Your task to perform on an android device: check storage Image 0: 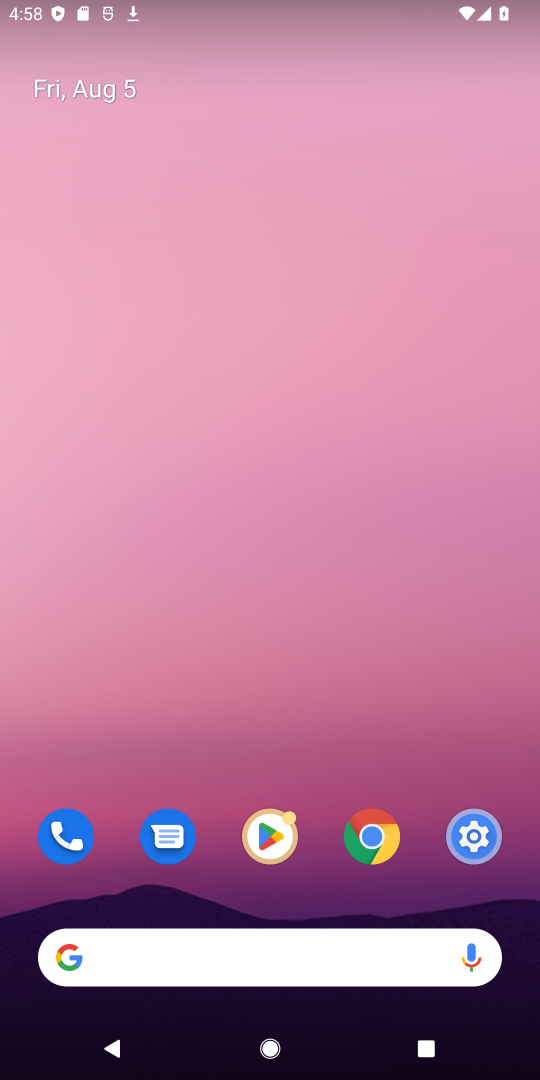
Step 0: press home button
Your task to perform on an android device: check storage Image 1: 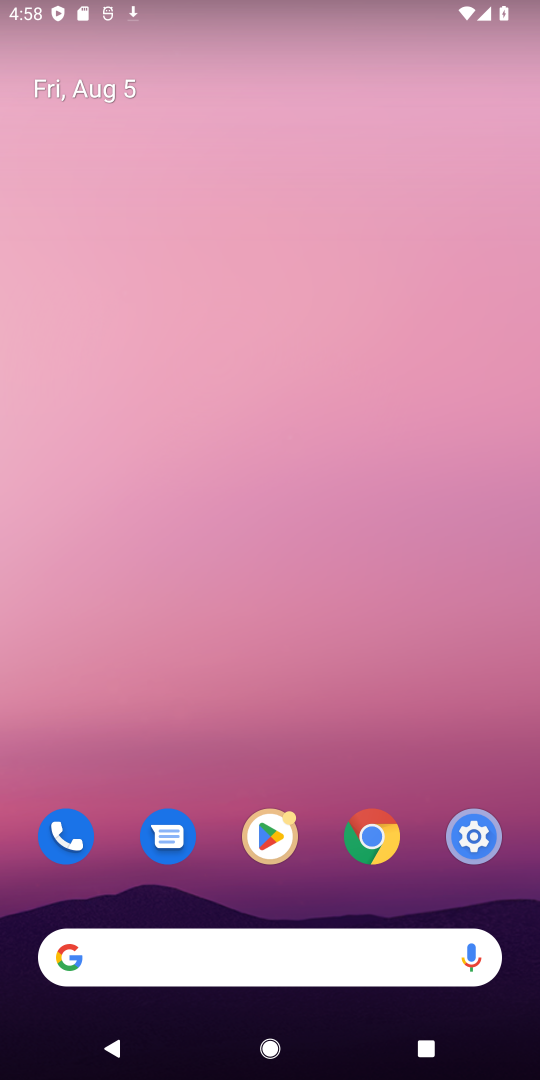
Step 1: click (483, 829)
Your task to perform on an android device: check storage Image 2: 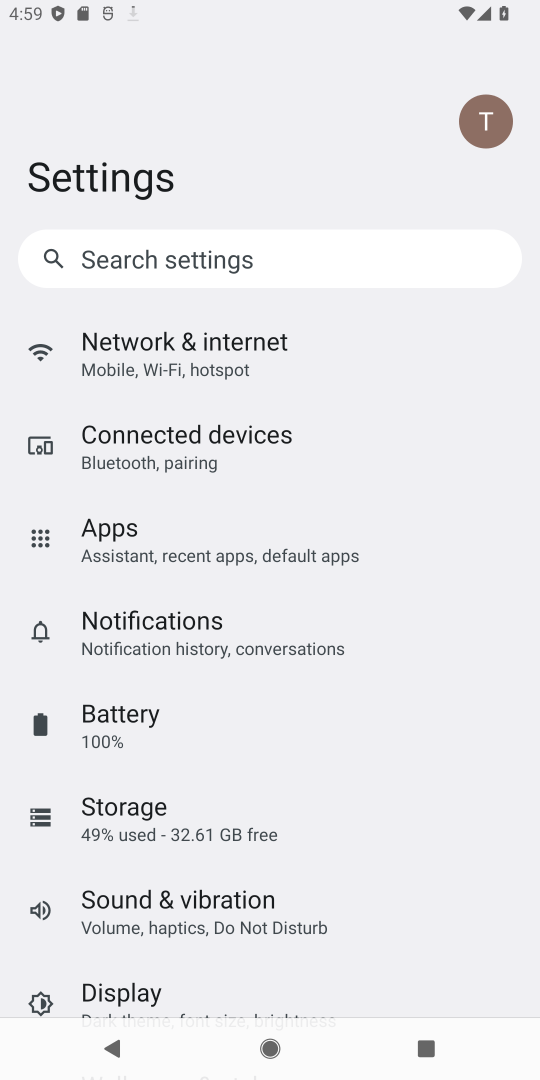
Step 2: click (181, 807)
Your task to perform on an android device: check storage Image 3: 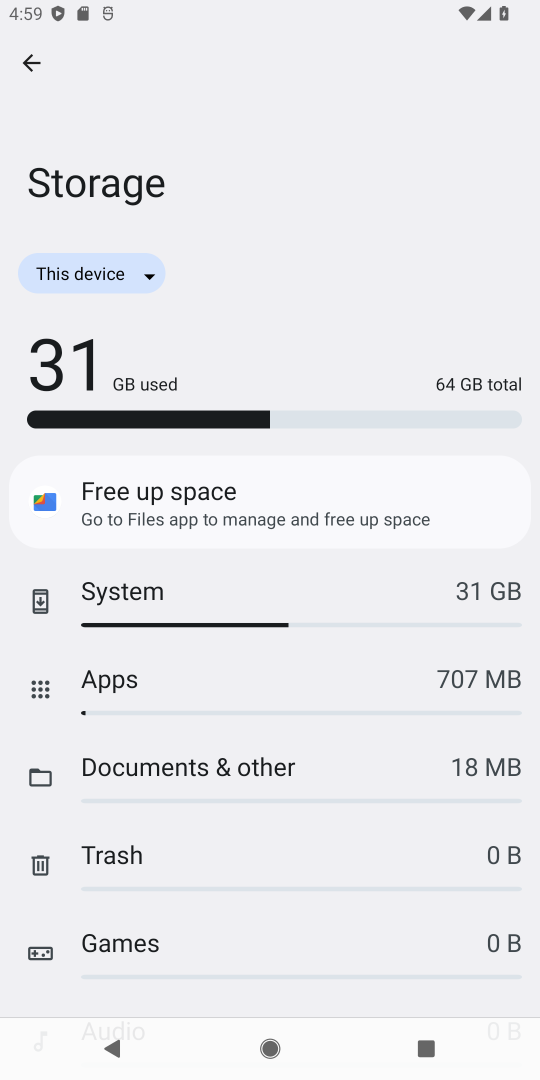
Step 3: task complete